Your task to perform on an android device: make emails show in primary in the gmail app Image 0: 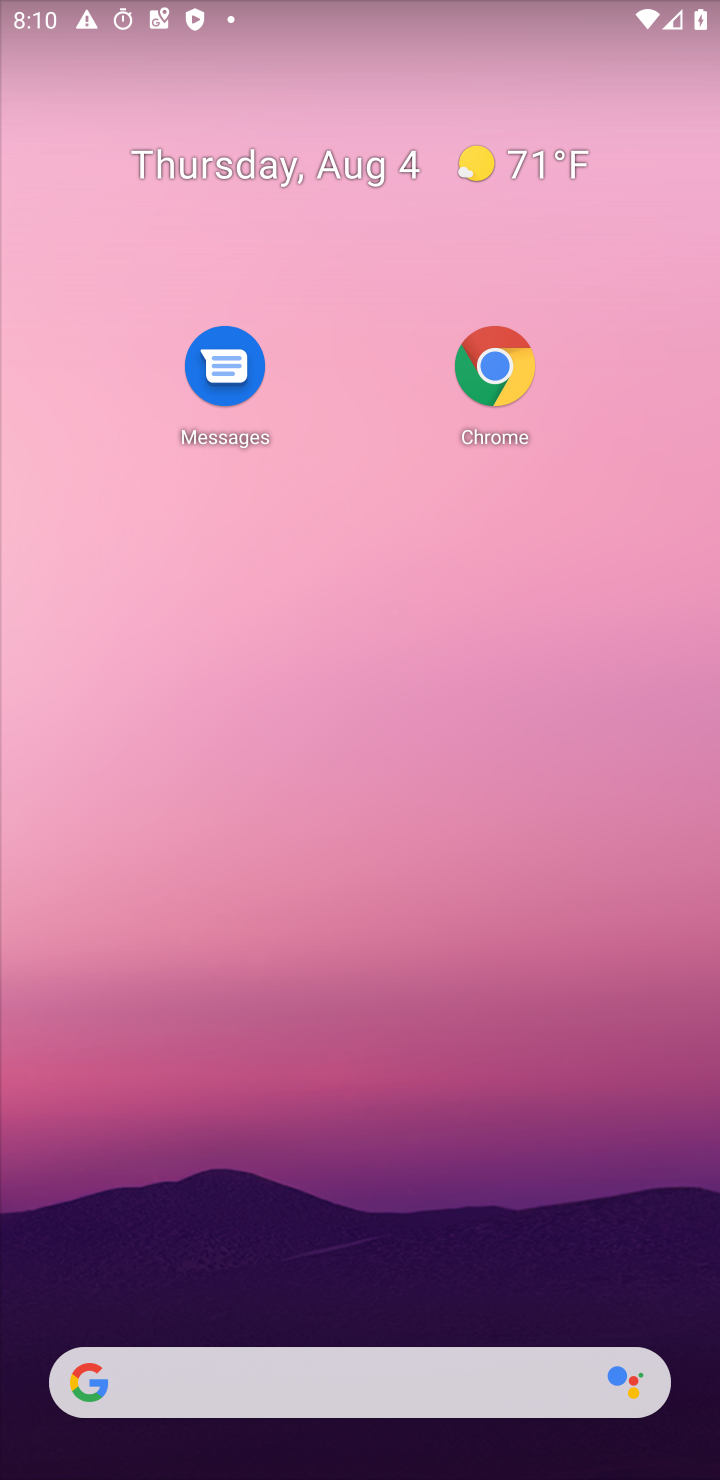
Step 0: press home button
Your task to perform on an android device: make emails show in primary in the gmail app Image 1: 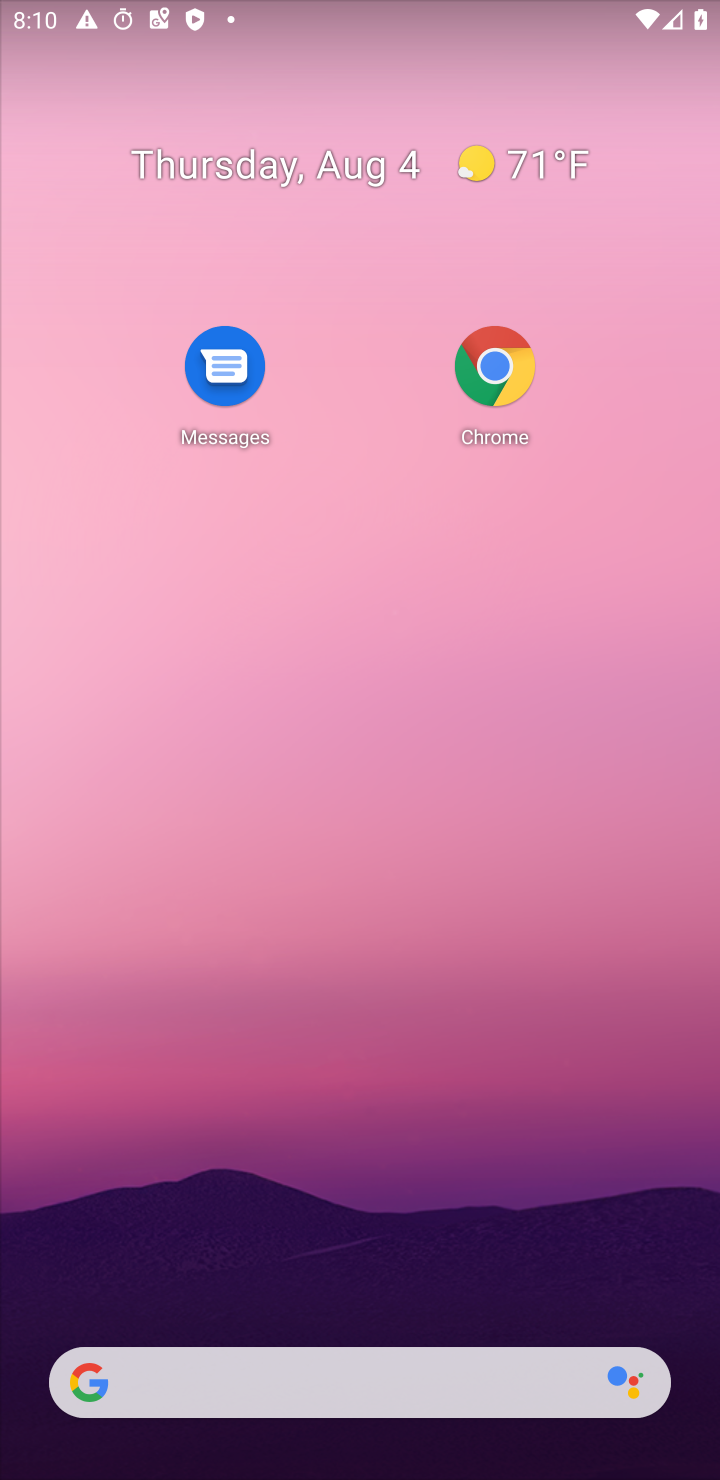
Step 1: drag from (121, 359) to (211, 190)
Your task to perform on an android device: make emails show in primary in the gmail app Image 2: 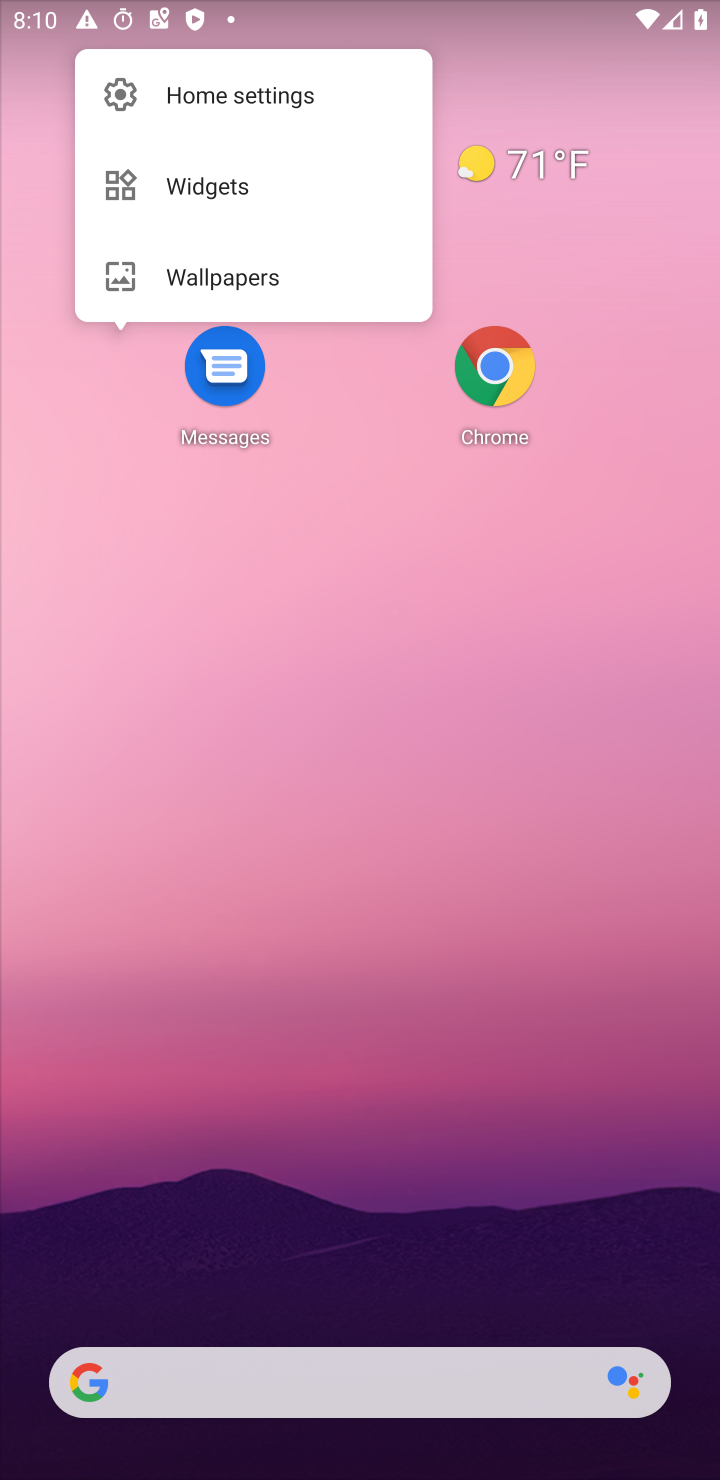
Step 2: click (382, 727)
Your task to perform on an android device: make emails show in primary in the gmail app Image 3: 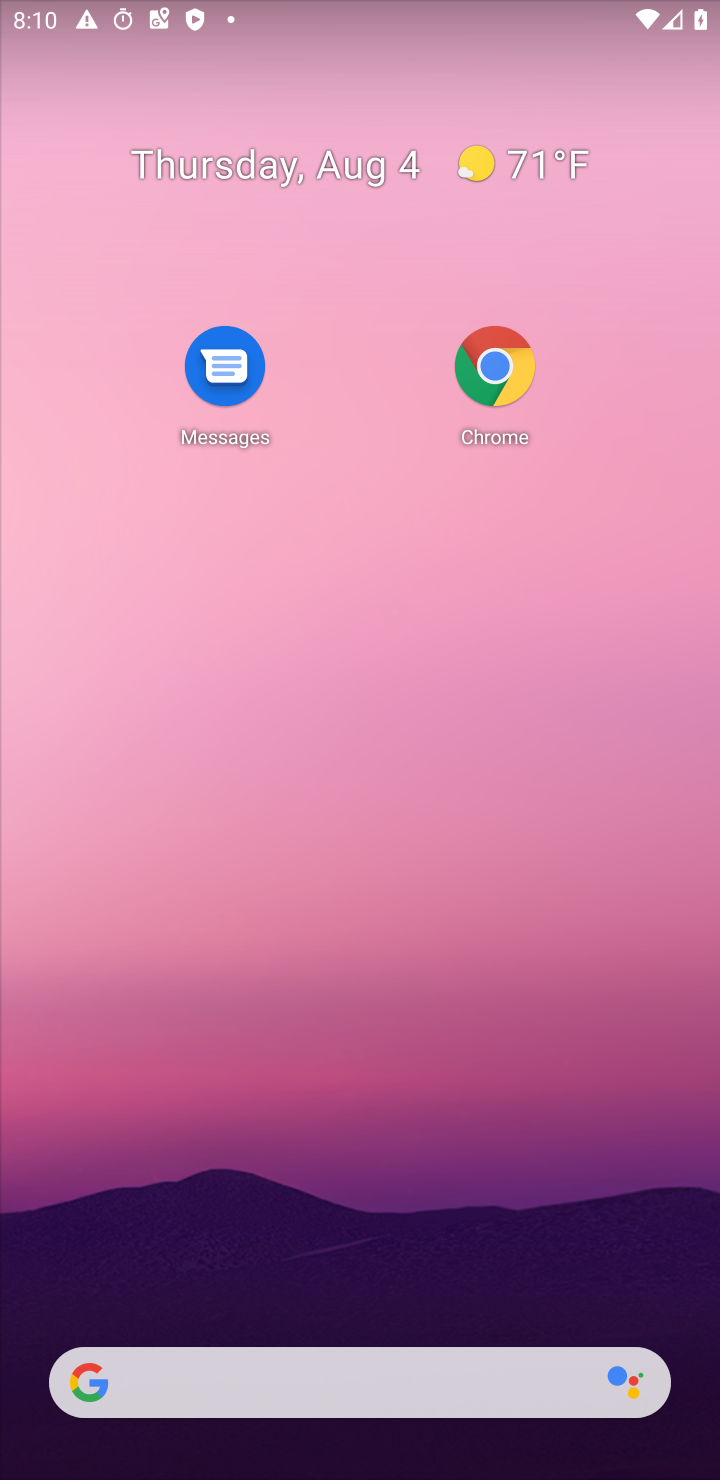
Step 3: drag from (385, 1425) to (295, 421)
Your task to perform on an android device: make emails show in primary in the gmail app Image 4: 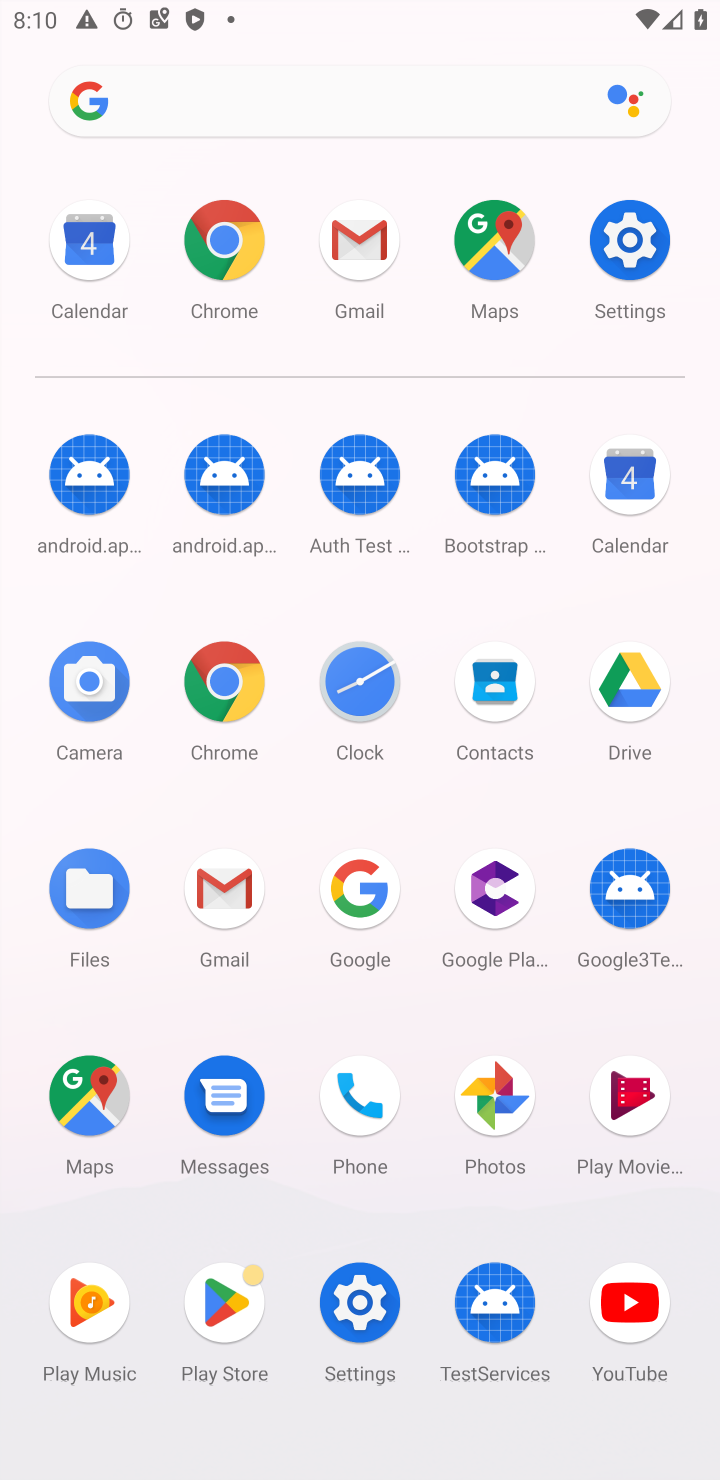
Step 4: click (346, 272)
Your task to perform on an android device: make emails show in primary in the gmail app Image 5: 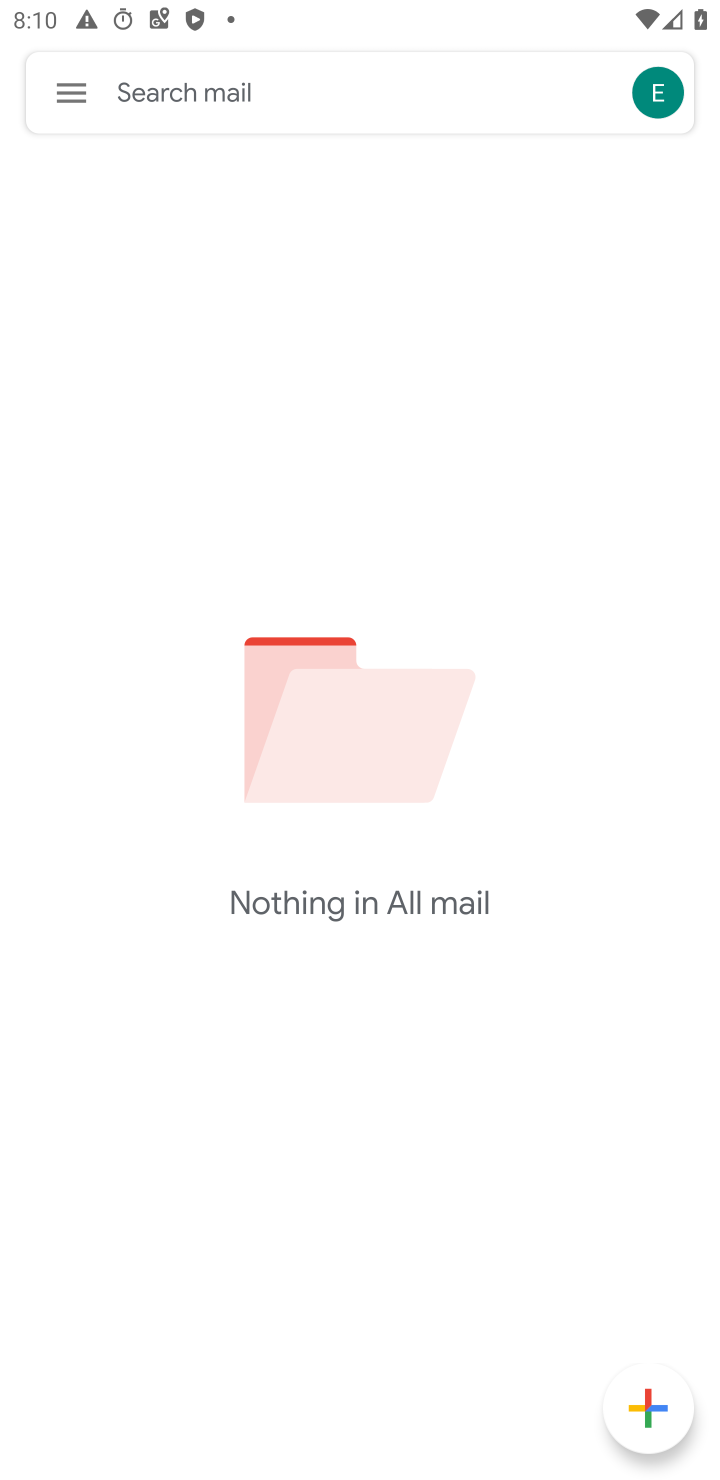
Step 5: click (76, 96)
Your task to perform on an android device: make emails show in primary in the gmail app Image 6: 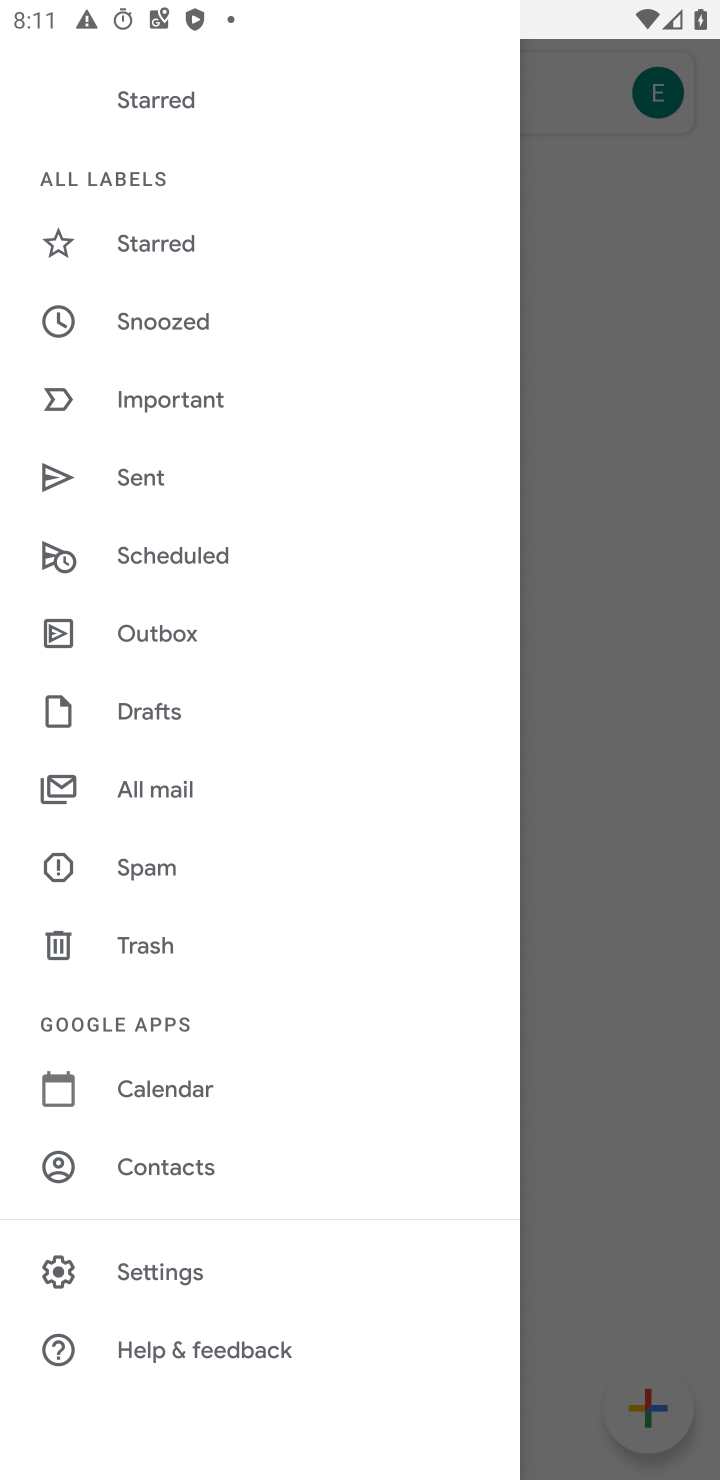
Step 6: click (173, 1282)
Your task to perform on an android device: make emails show in primary in the gmail app Image 7: 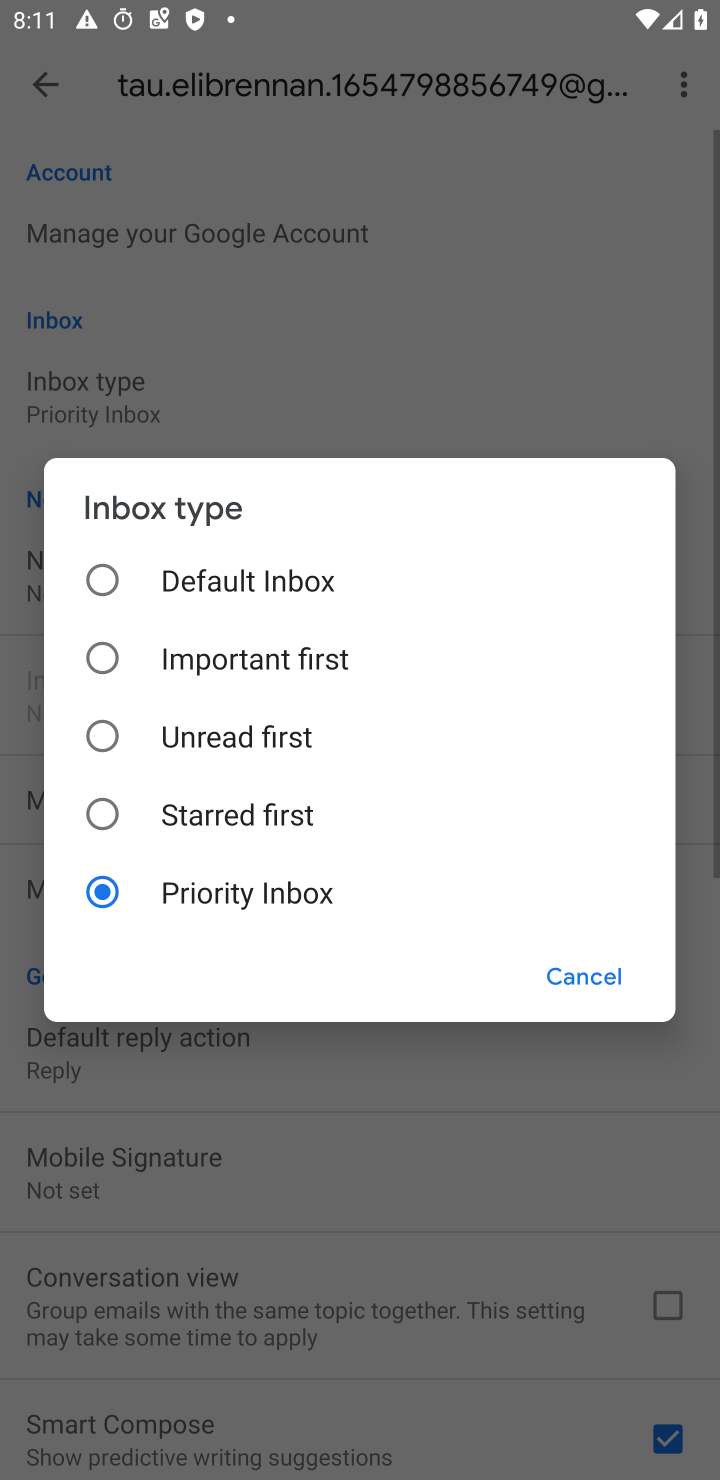
Step 7: click (487, 1075)
Your task to perform on an android device: make emails show in primary in the gmail app Image 8: 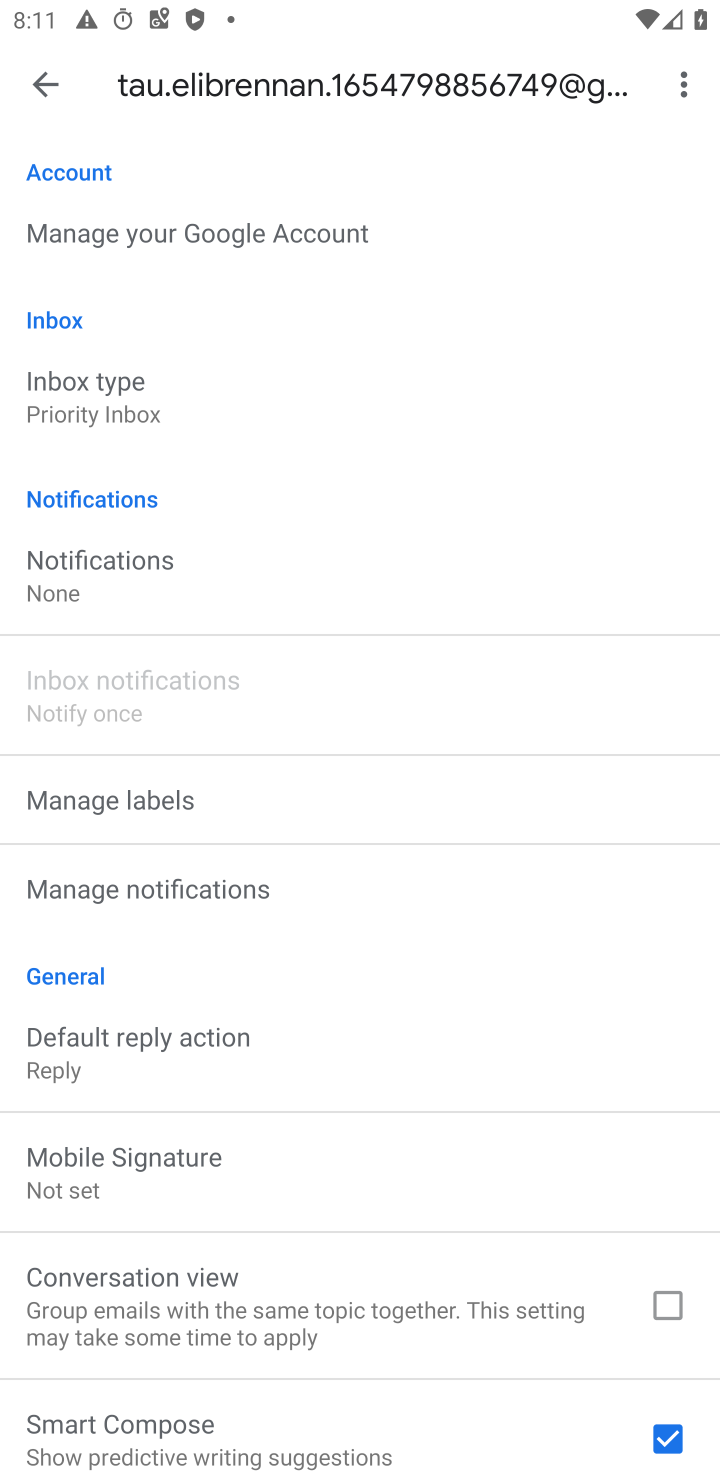
Step 8: click (102, 382)
Your task to perform on an android device: make emails show in primary in the gmail app Image 9: 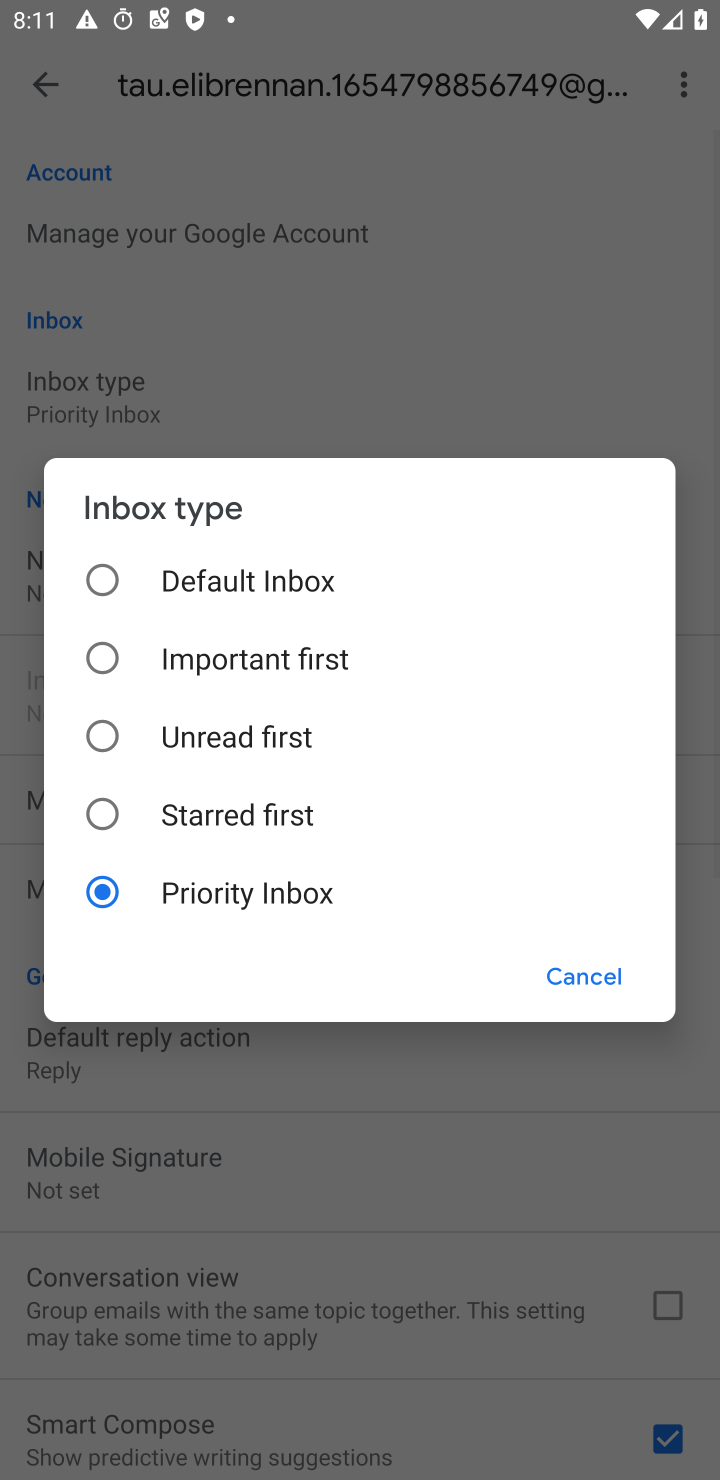
Step 9: click (218, 561)
Your task to perform on an android device: make emails show in primary in the gmail app Image 10: 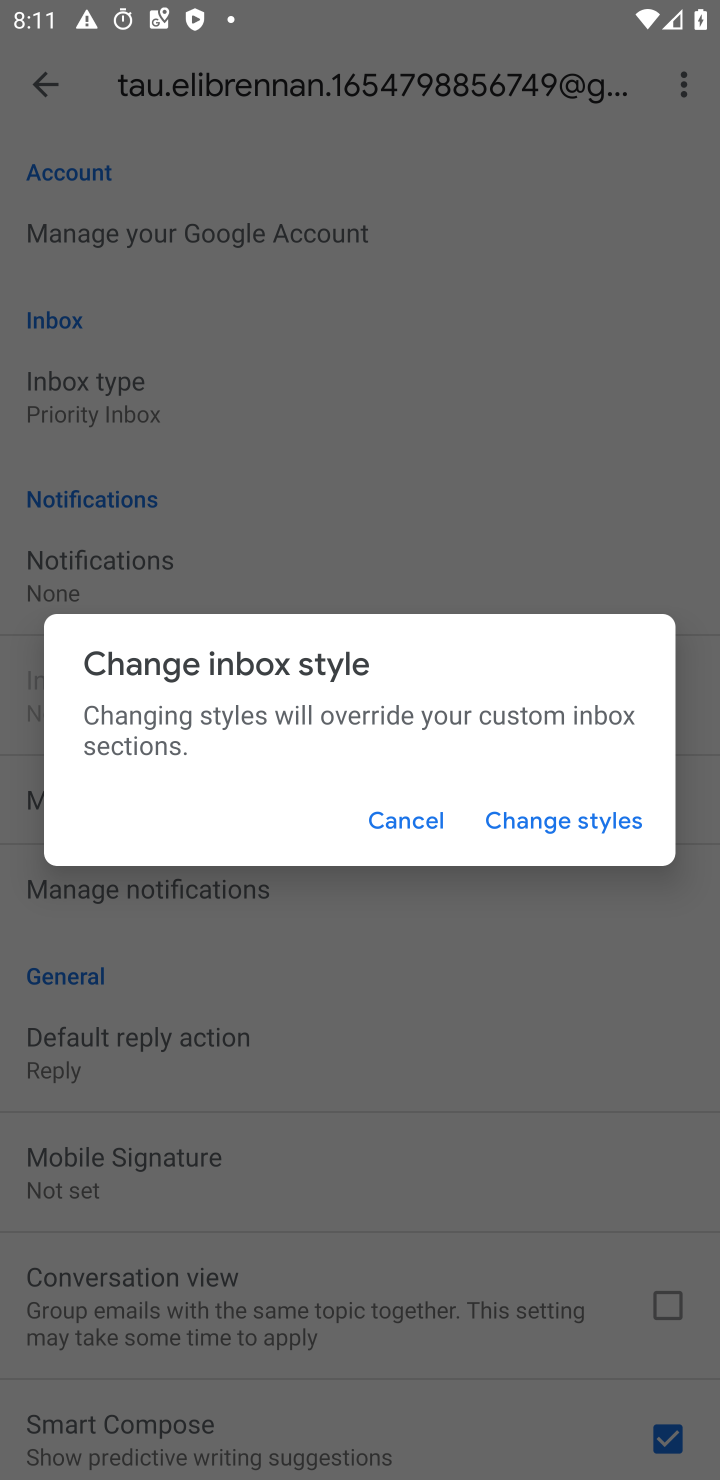
Step 10: click (381, 814)
Your task to perform on an android device: make emails show in primary in the gmail app Image 11: 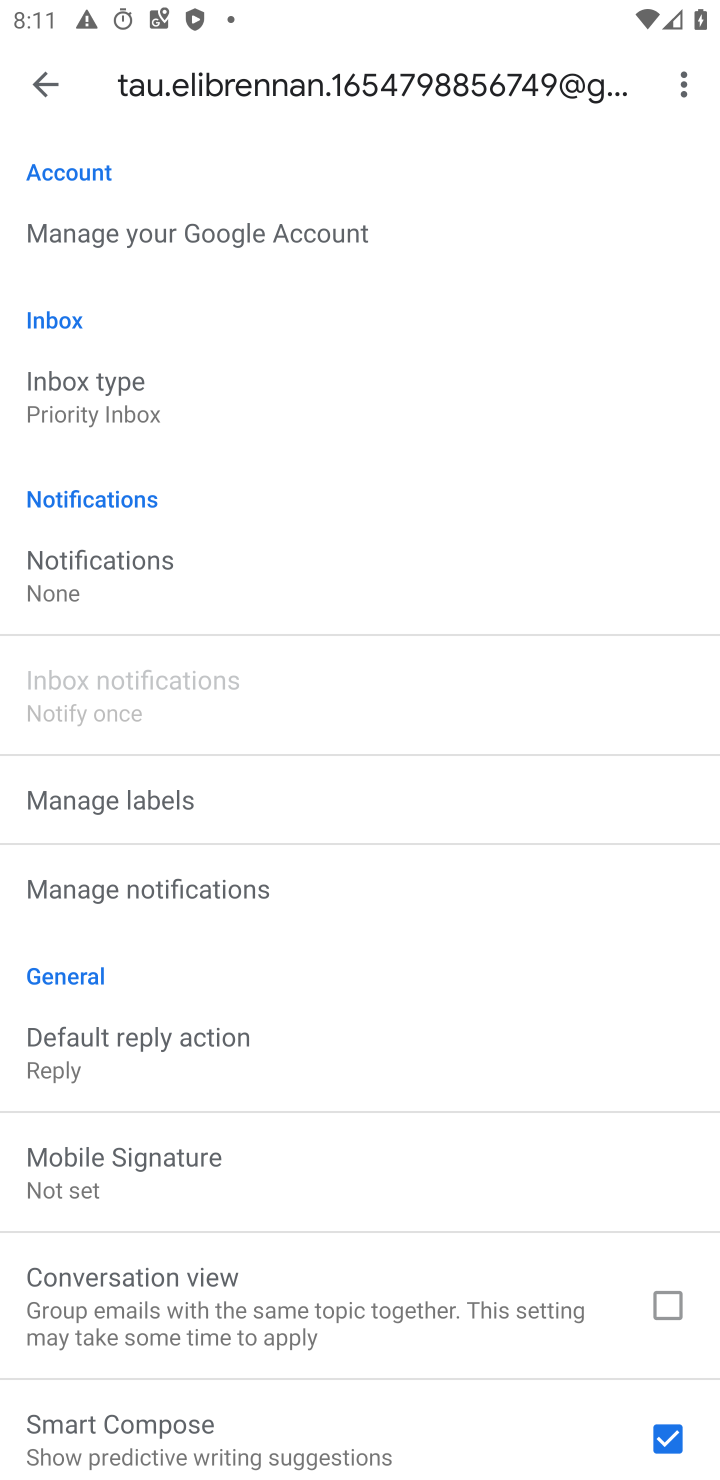
Step 11: click (123, 401)
Your task to perform on an android device: make emails show in primary in the gmail app Image 12: 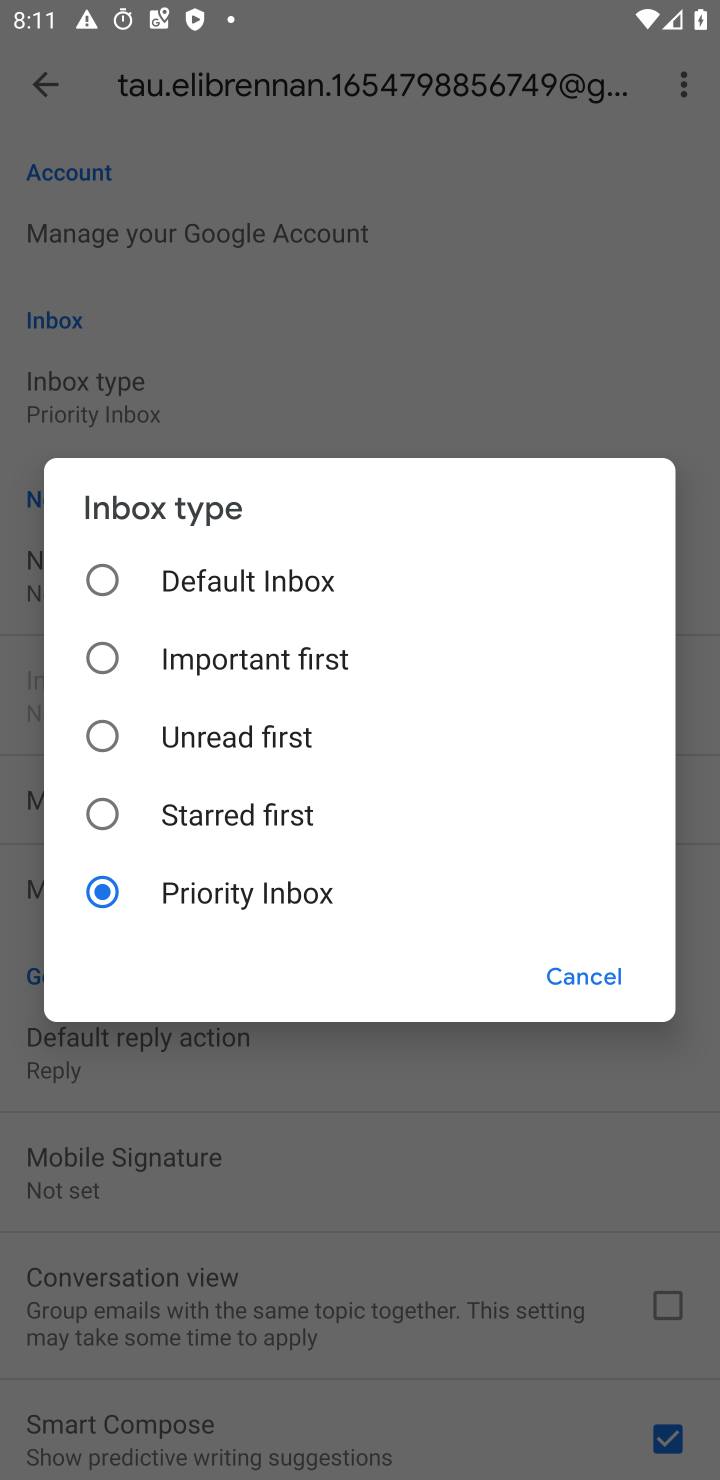
Step 12: click (266, 592)
Your task to perform on an android device: make emails show in primary in the gmail app Image 13: 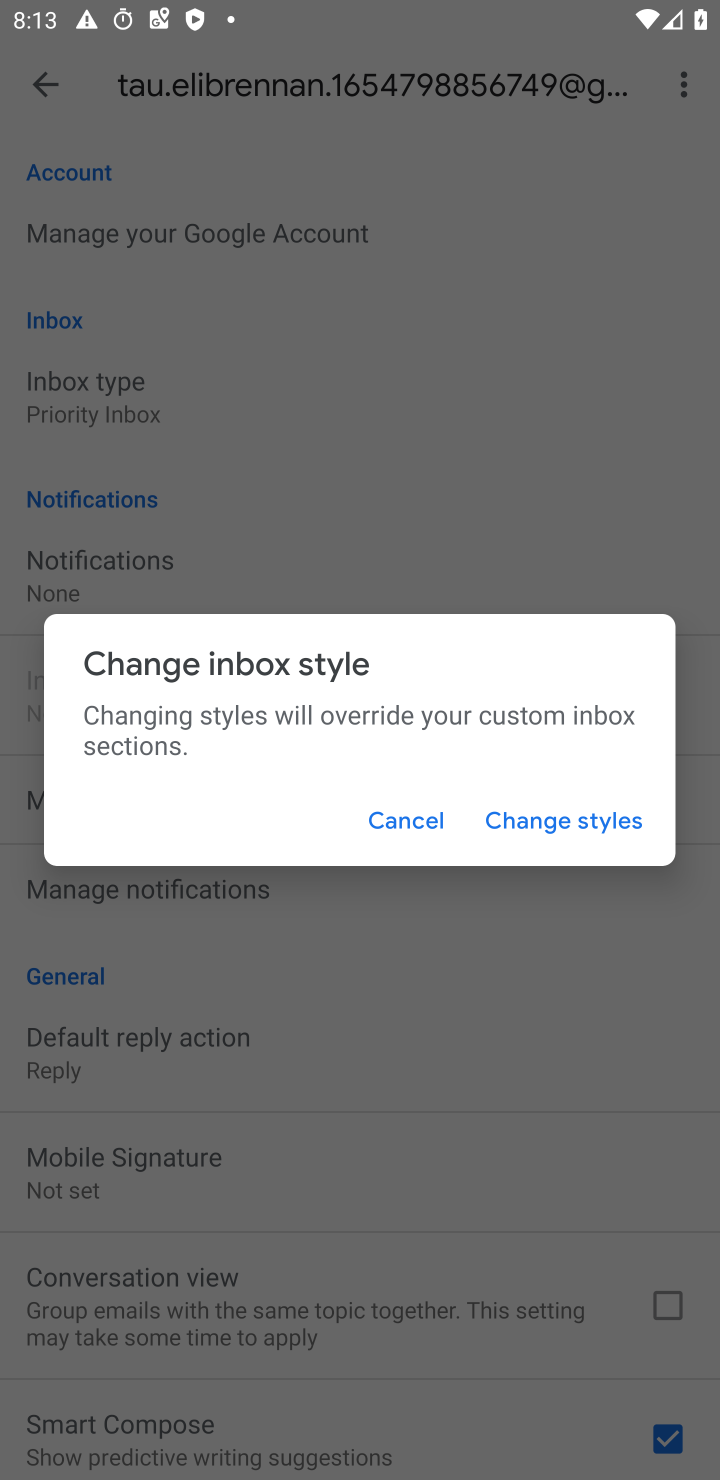
Step 13: task complete